Your task to perform on an android device: Open Amazon Image 0: 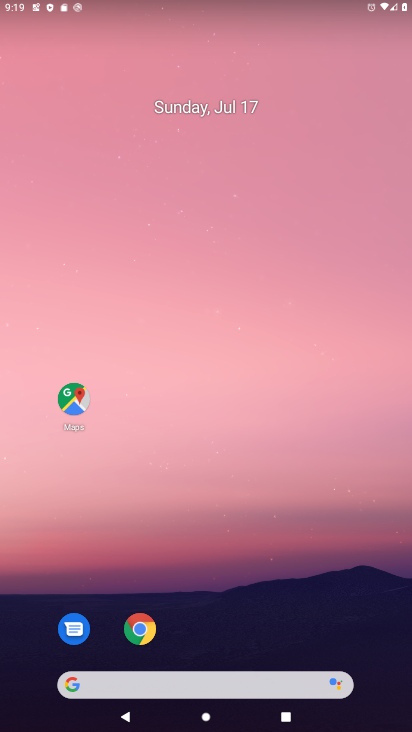
Step 0: click (139, 634)
Your task to perform on an android device: Open Amazon Image 1: 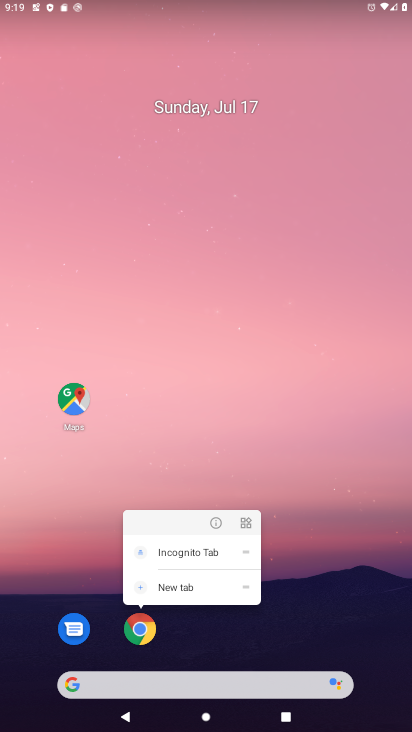
Step 1: click (136, 634)
Your task to perform on an android device: Open Amazon Image 2: 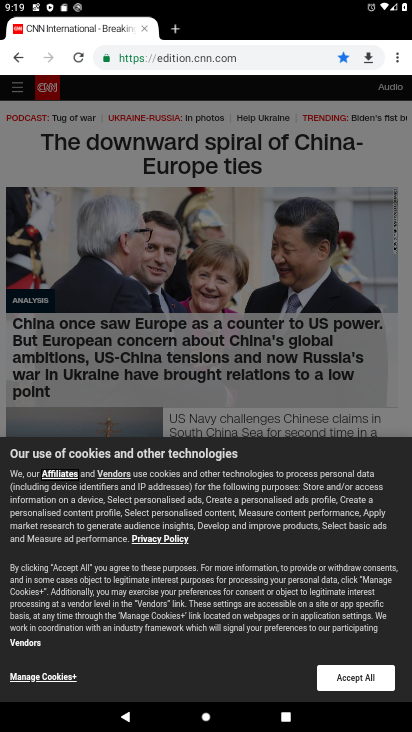
Step 2: click (346, 95)
Your task to perform on an android device: Open Amazon Image 3: 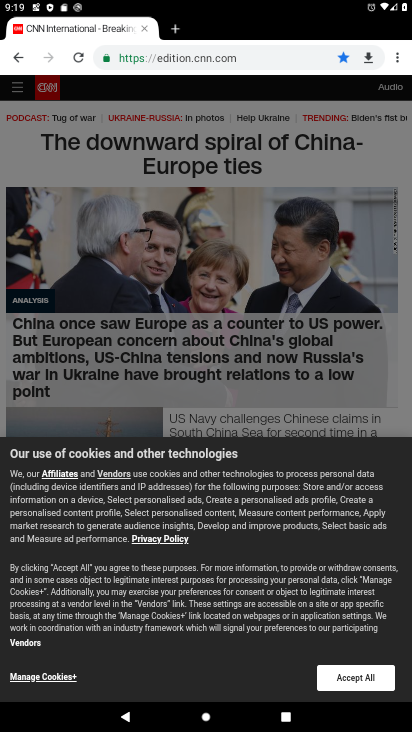
Step 3: click (155, 60)
Your task to perform on an android device: Open Amazon Image 4: 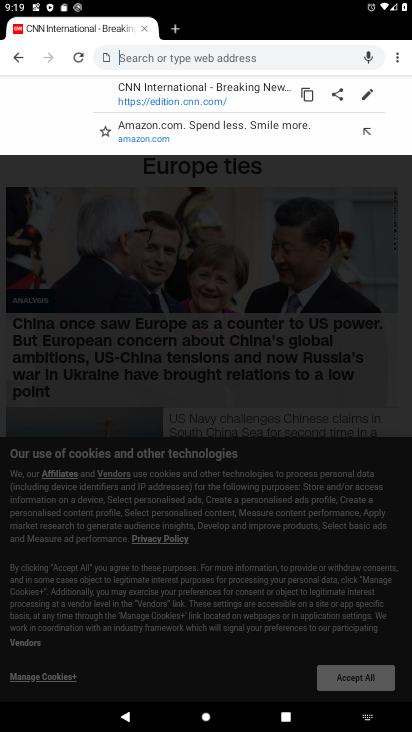
Step 4: type "Amazon"
Your task to perform on an android device: Open Amazon Image 5: 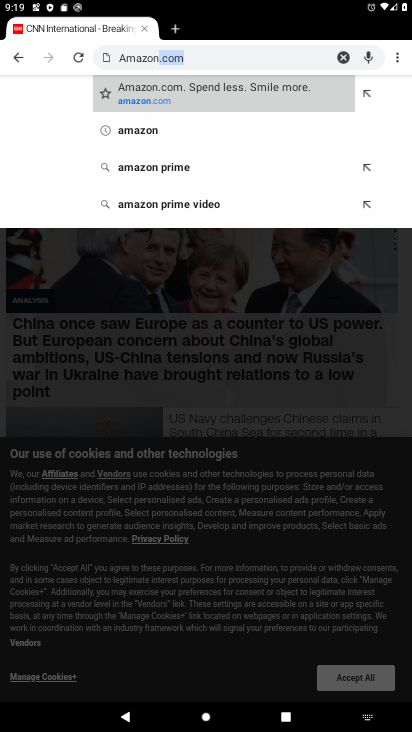
Step 5: click (137, 83)
Your task to perform on an android device: Open Amazon Image 6: 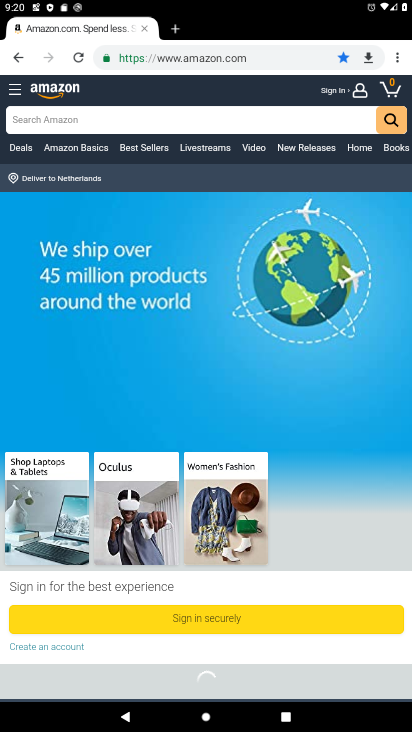
Step 6: task complete